Your task to perform on an android device: Go to Wikipedia Image 0: 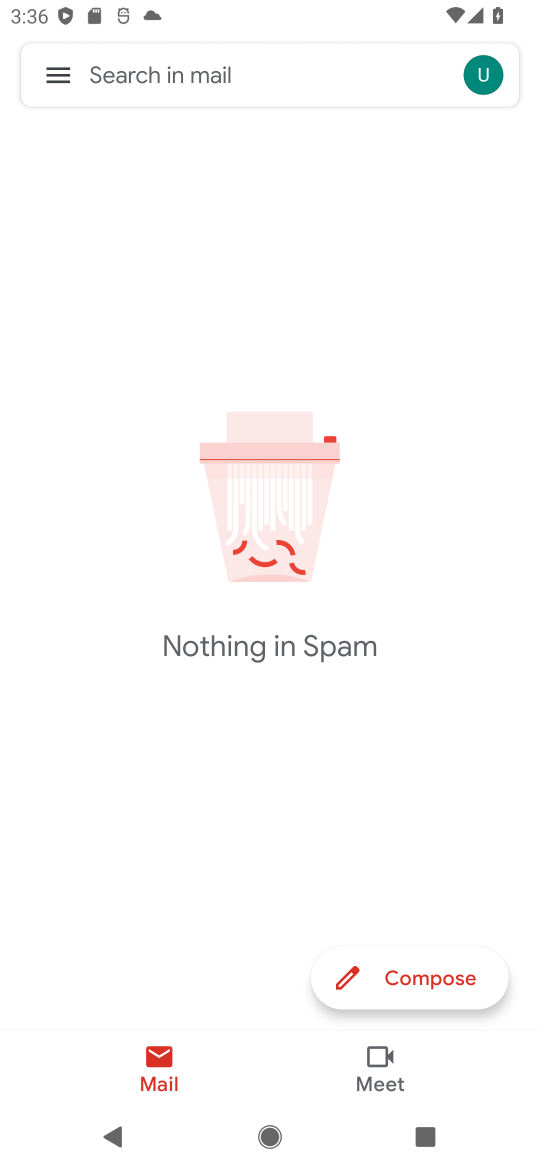
Step 0: press home button
Your task to perform on an android device: Go to Wikipedia Image 1: 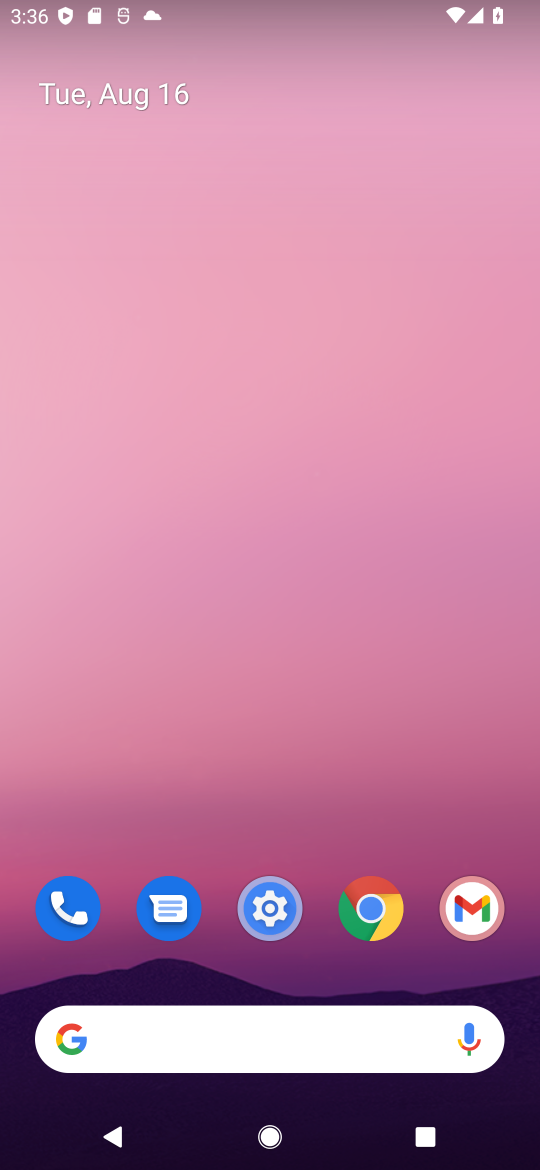
Step 1: click (269, 904)
Your task to perform on an android device: Go to Wikipedia Image 2: 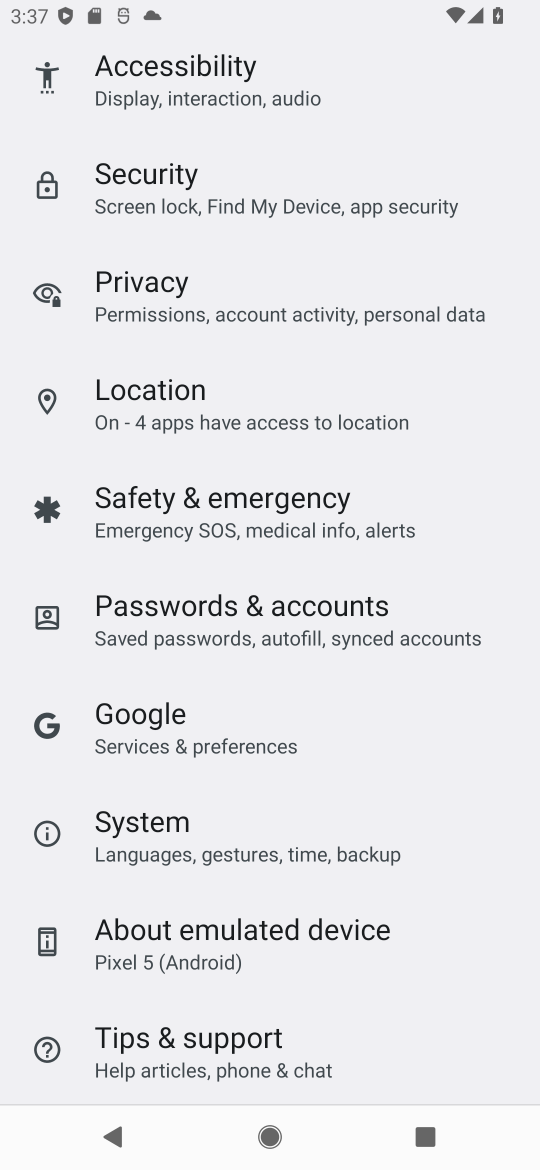
Step 2: drag from (241, 151) to (156, 1150)
Your task to perform on an android device: Go to Wikipedia Image 3: 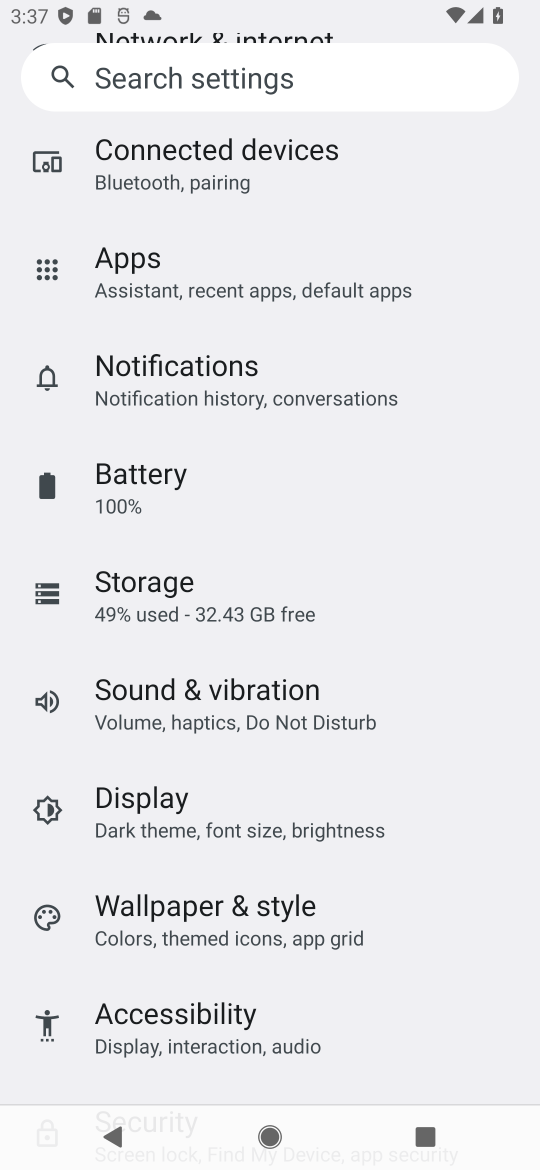
Step 3: drag from (250, 203) to (346, 1067)
Your task to perform on an android device: Go to Wikipedia Image 4: 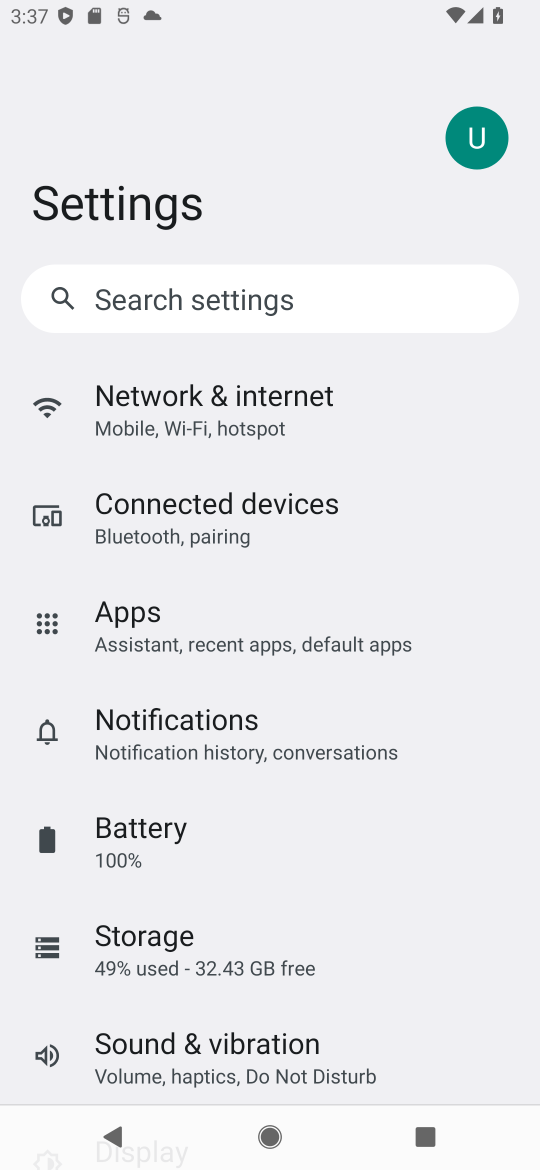
Step 4: click (244, 408)
Your task to perform on an android device: Go to Wikipedia Image 5: 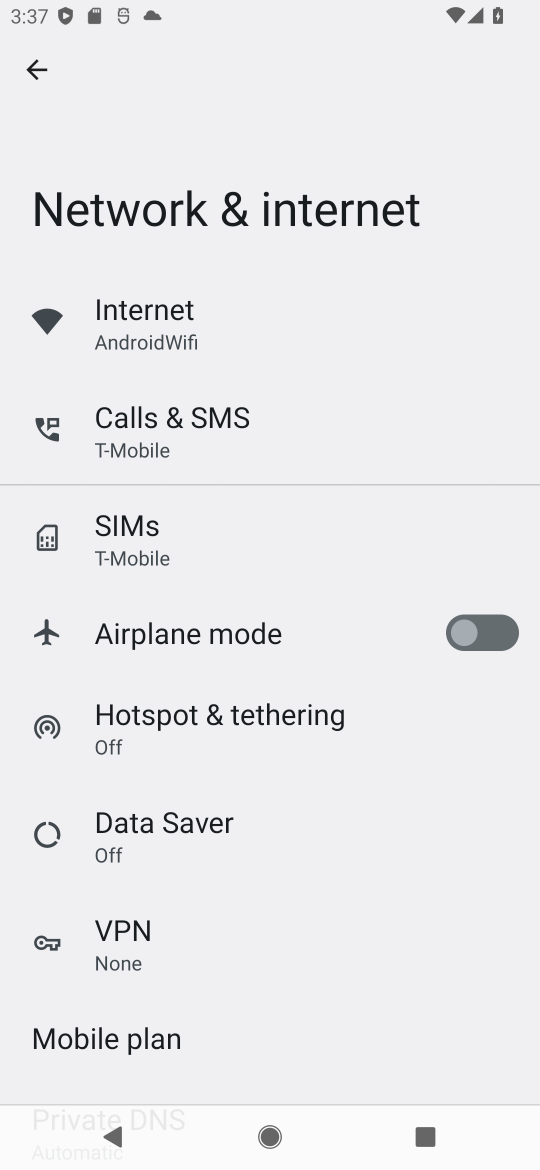
Step 5: press home button
Your task to perform on an android device: Go to Wikipedia Image 6: 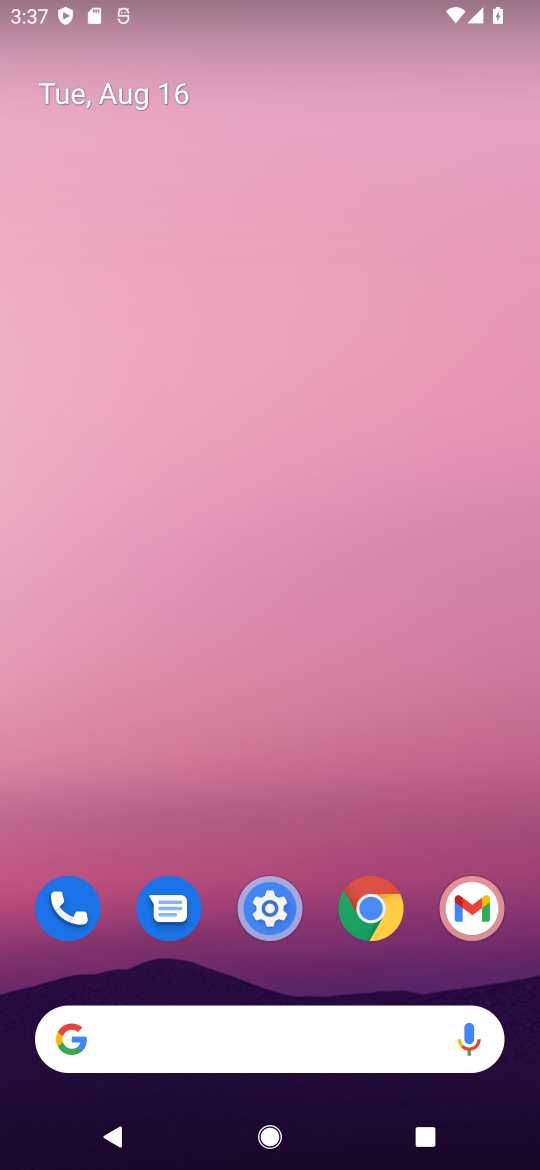
Step 6: click (366, 909)
Your task to perform on an android device: Go to Wikipedia Image 7: 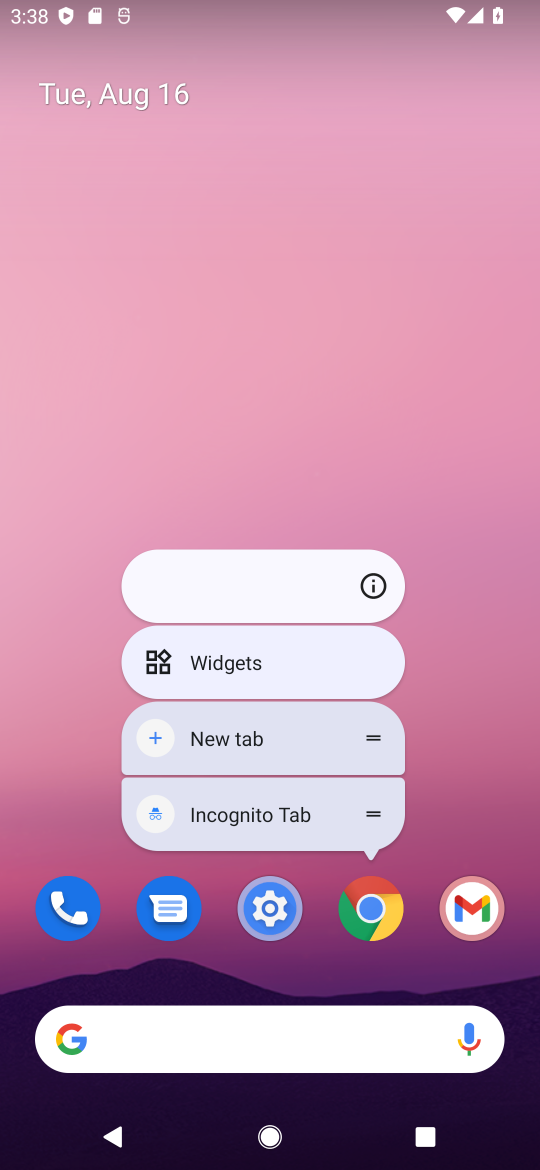
Step 7: click (364, 910)
Your task to perform on an android device: Go to Wikipedia Image 8: 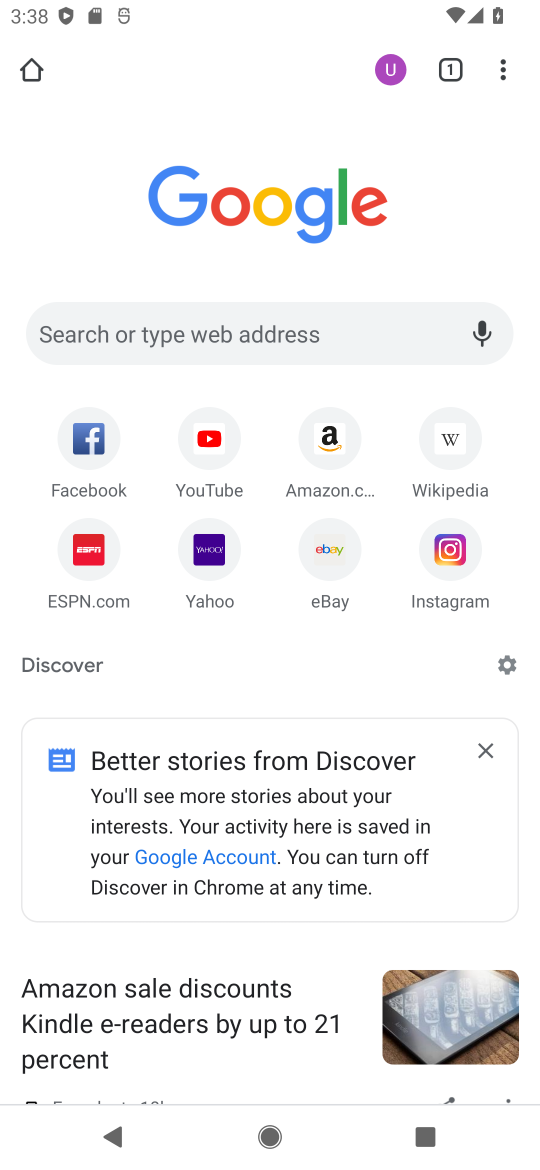
Step 8: click (450, 453)
Your task to perform on an android device: Go to Wikipedia Image 9: 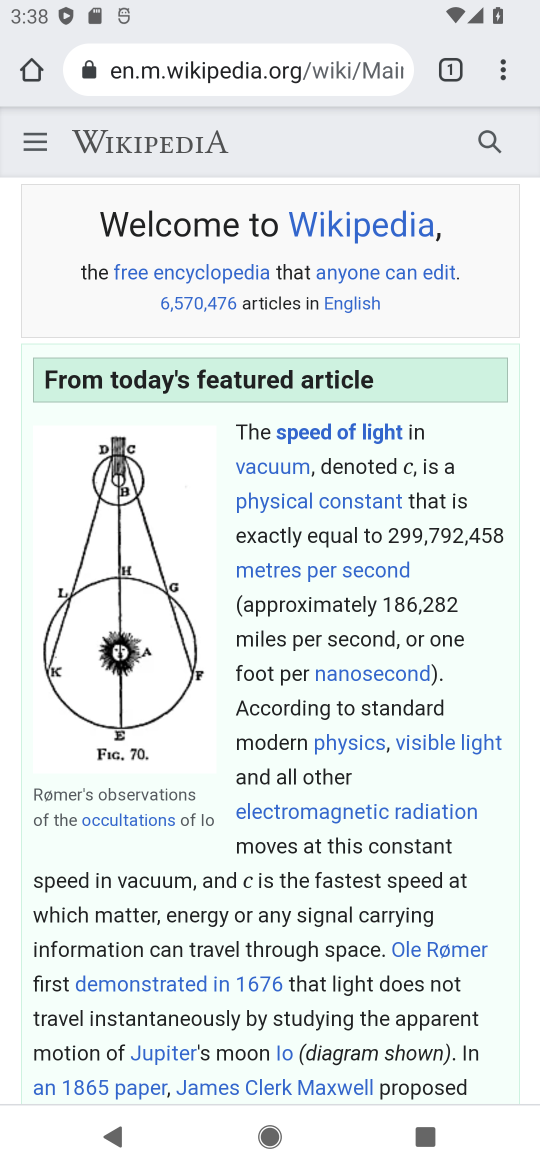
Step 9: task complete